Your task to perform on an android device: turn vacation reply on in the gmail app Image 0: 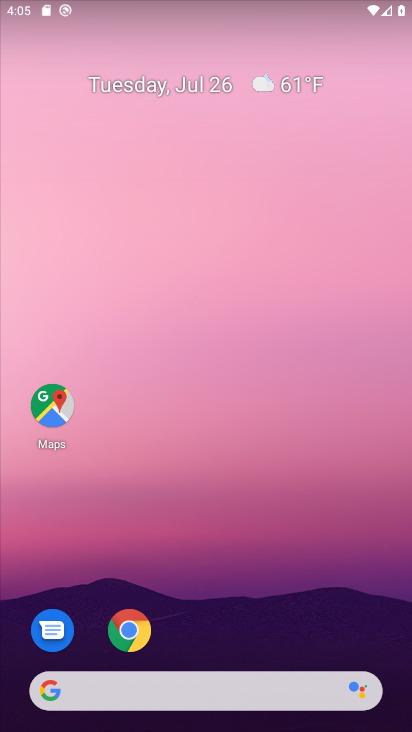
Step 0: drag from (224, 468) to (160, 226)
Your task to perform on an android device: turn vacation reply on in the gmail app Image 1: 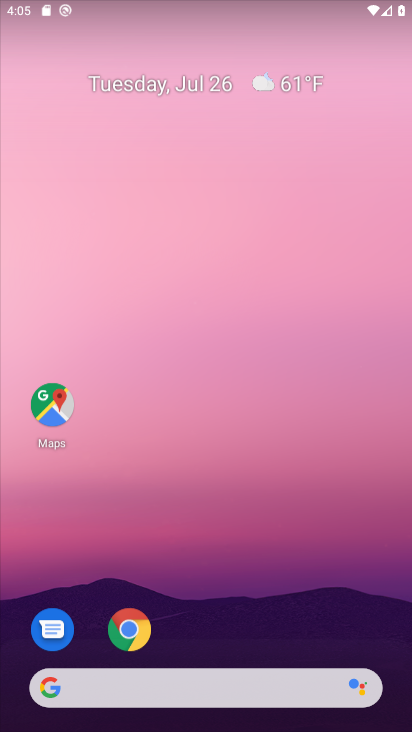
Step 1: click (225, 58)
Your task to perform on an android device: turn vacation reply on in the gmail app Image 2: 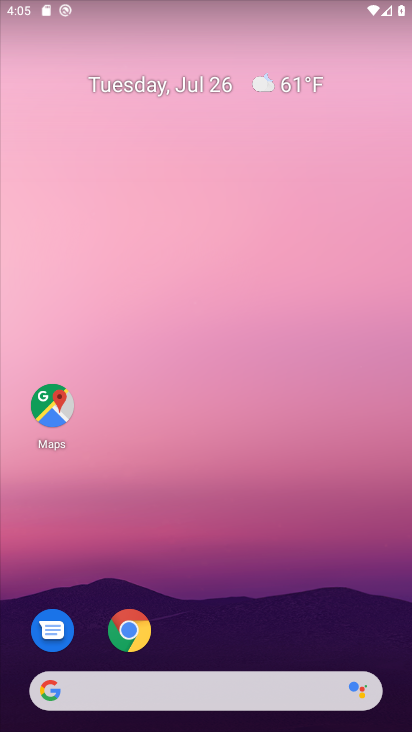
Step 2: drag from (251, 388) to (218, 9)
Your task to perform on an android device: turn vacation reply on in the gmail app Image 3: 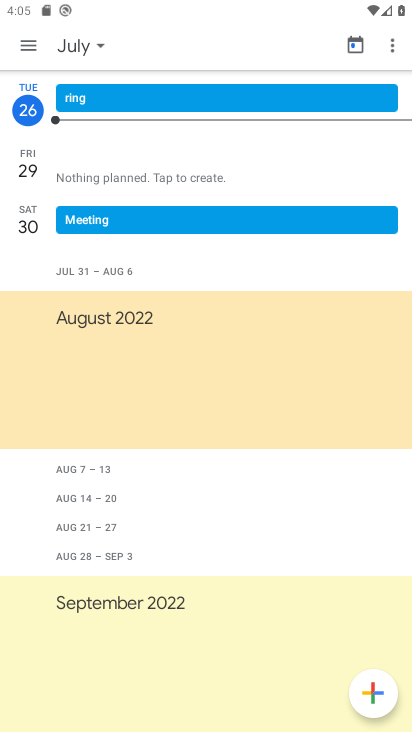
Step 3: press back button
Your task to perform on an android device: turn vacation reply on in the gmail app Image 4: 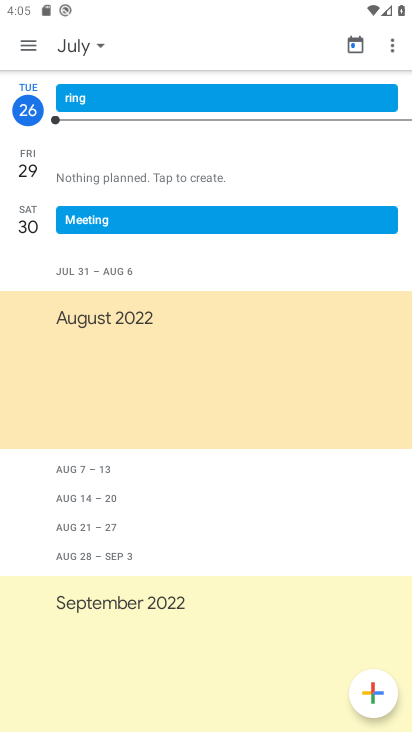
Step 4: press back button
Your task to perform on an android device: turn vacation reply on in the gmail app Image 5: 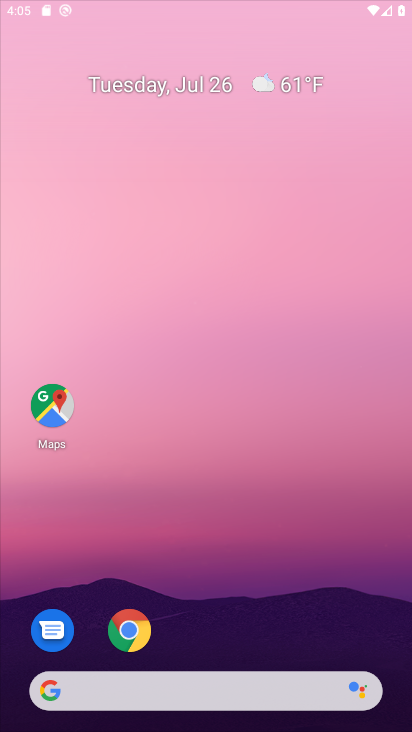
Step 5: press back button
Your task to perform on an android device: turn vacation reply on in the gmail app Image 6: 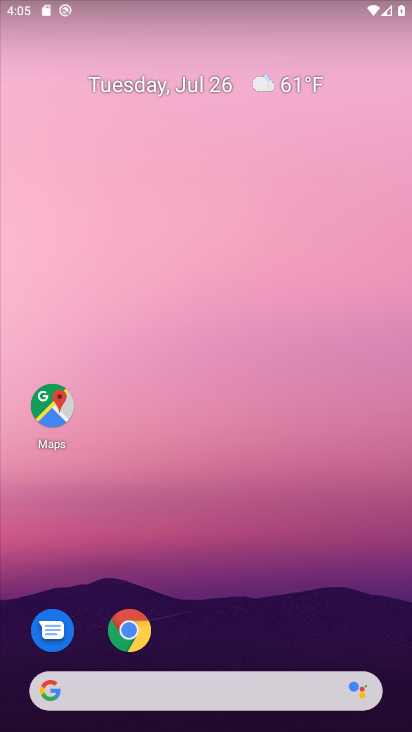
Step 6: drag from (239, 507) to (193, 55)
Your task to perform on an android device: turn vacation reply on in the gmail app Image 7: 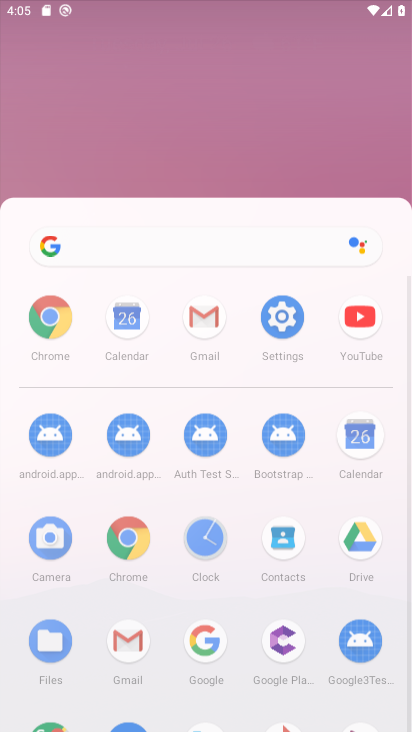
Step 7: drag from (246, 445) to (258, 148)
Your task to perform on an android device: turn vacation reply on in the gmail app Image 8: 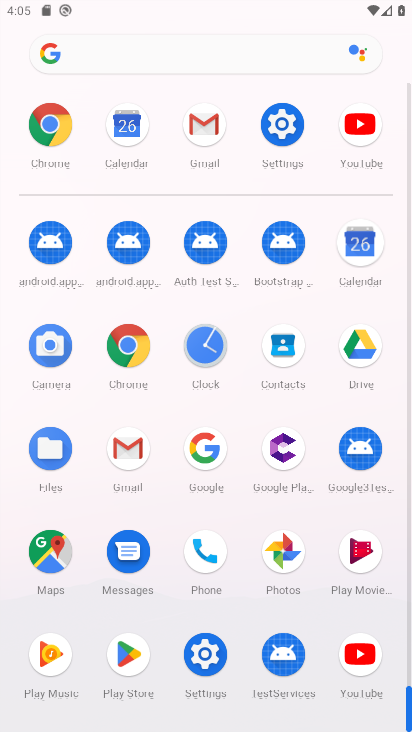
Step 8: click (209, 122)
Your task to perform on an android device: turn vacation reply on in the gmail app Image 9: 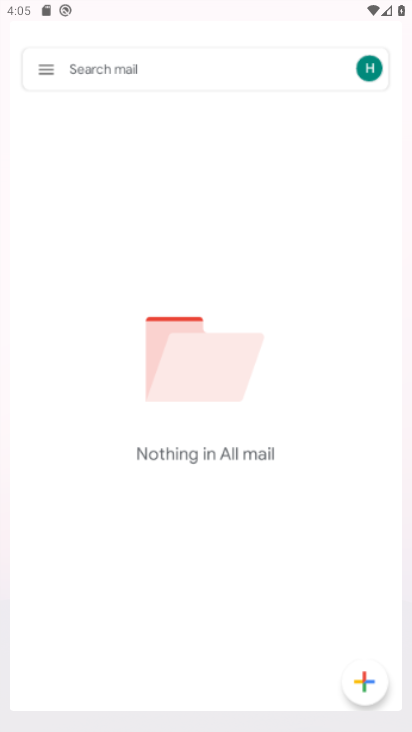
Step 9: click (194, 132)
Your task to perform on an android device: turn vacation reply on in the gmail app Image 10: 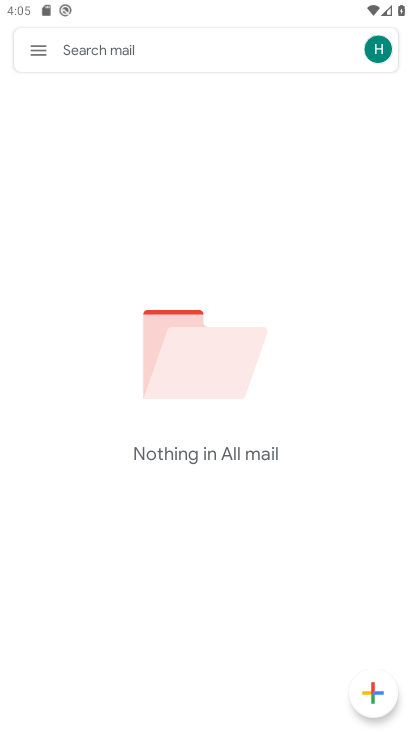
Step 10: click (39, 51)
Your task to perform on an android device: turn vacation reply on in the gmail app Image 11: 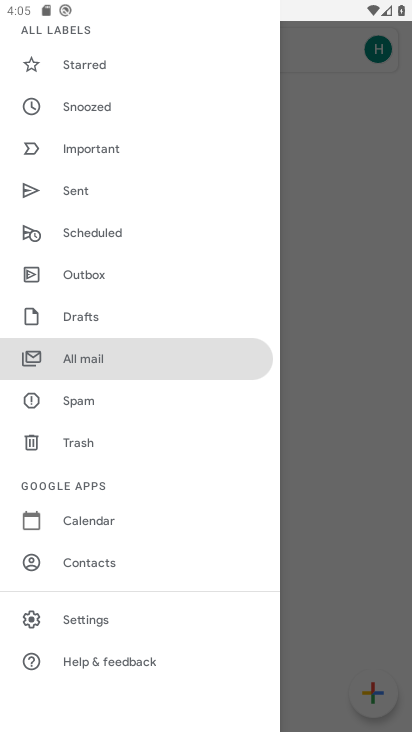
Step 11: click (86, 619)
Your task to perform on an android device: turn vacation reply on in the gmail app Image 12: 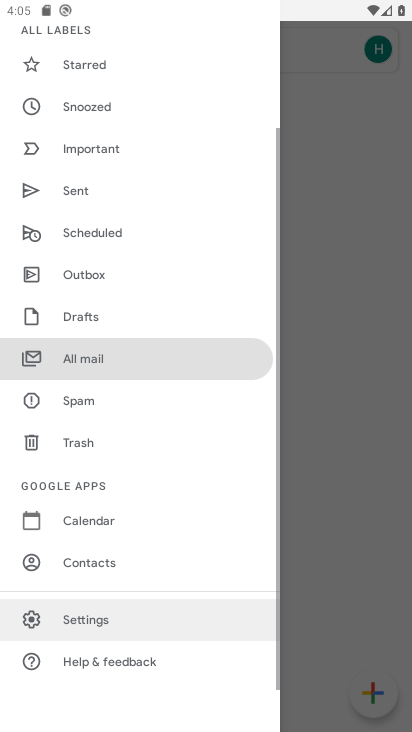
Step 12: click (86, 614)
Your task to perform on an android device: turn vacation reply on in the gmail app Image 13: 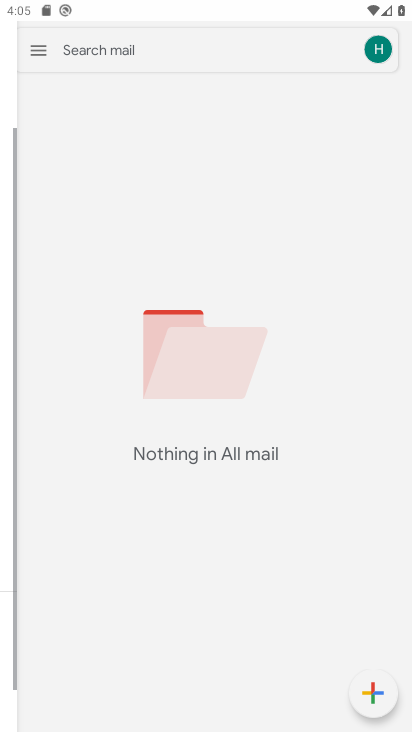
Step 13: click (87, 613)
Your task to perform on an android device: turn vacation reply on in the gmail app Image 14: 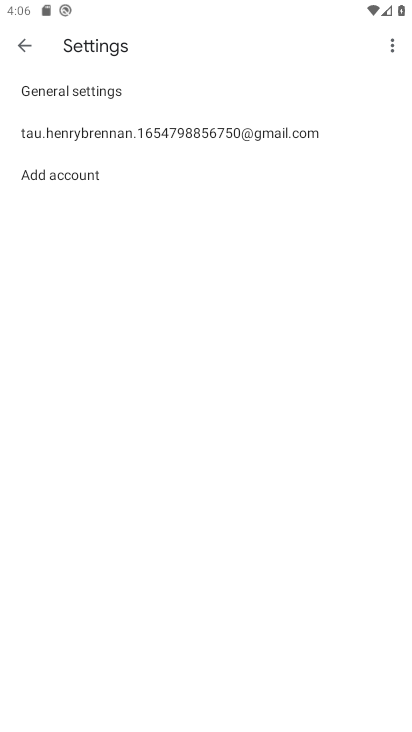
Step 14: click (87, 124)
Your task to perform on an android device: turn vacation reply on in the gmail app Image 15: 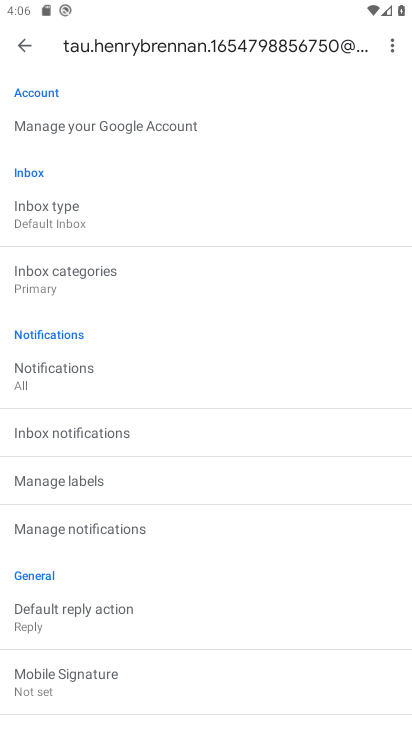
Step 15: drag from (108, 647) to (94, 350)
Your task to perform on an android device: turn vacation reply on in the gmail app Image 16: 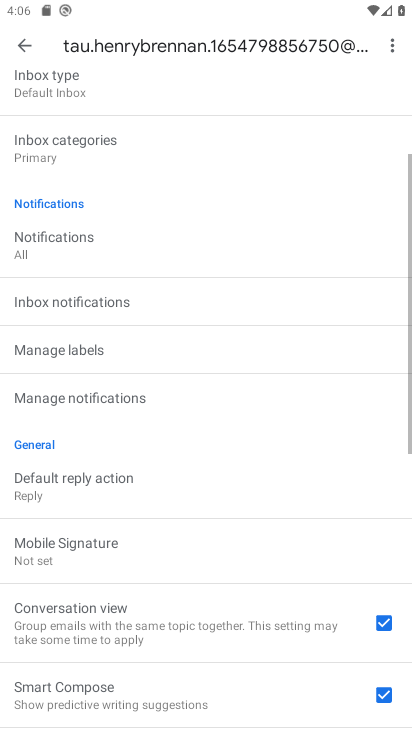
Step 16: drag from (97, 655) to (127, 192)
Your task to perform on an android device: turn vacation reply on in the gmail app Image 17: 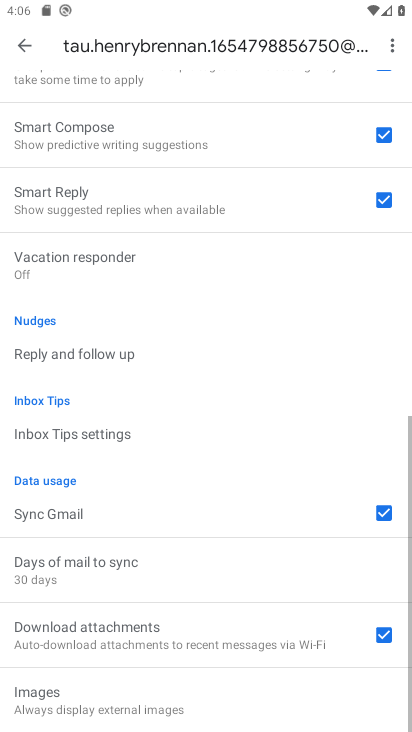
Step 17: drag from (120, 515) to (132, 301)
Your task to perform on an android device: turn vacation reply on in the gmail app Image 18: 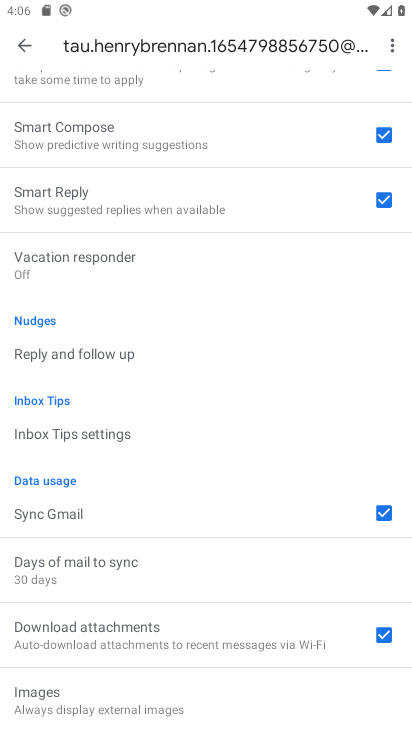
Step 18: click (102, 260)
Your task to perform on an android device: turn vacation reply on in the gmail app Image 19: 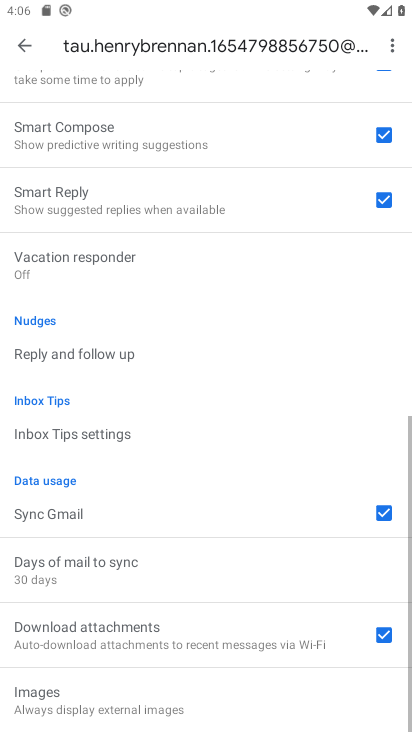
Step 19: click (102, 261)
Your task to perform on an android device: turn vacation reply on in the gmail app Image 20: 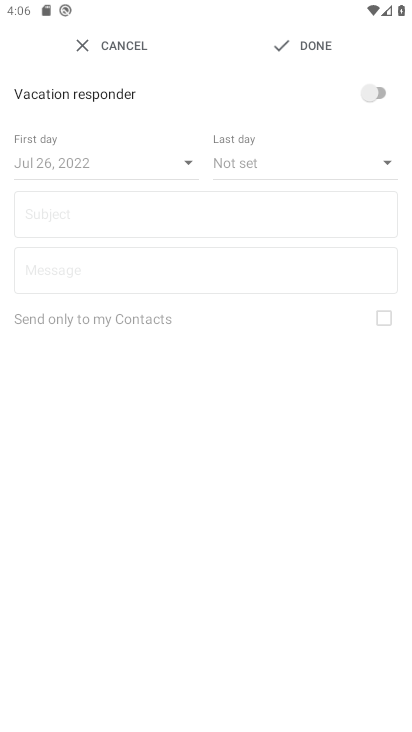
Step 20: click (361, 88)
Your task to perform on an android device: turn vacation reply on in the gmail app Image 21: 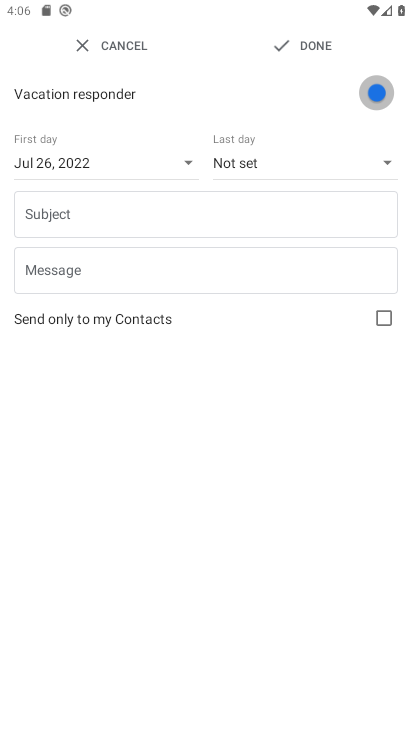
Step 21: click (363, 89)
Your task to perform on an android device: turn vacation reply on in the gmail app Image 22: 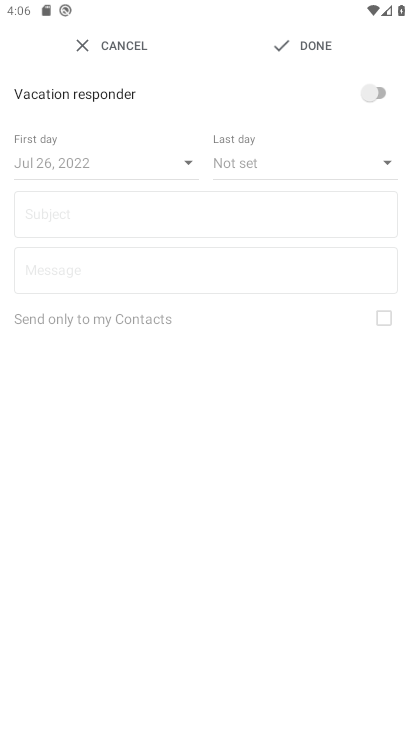
Step 22: click (373, 85)
Your task to perform on an android device: turn vacation reply on in the gmail app Image 23: 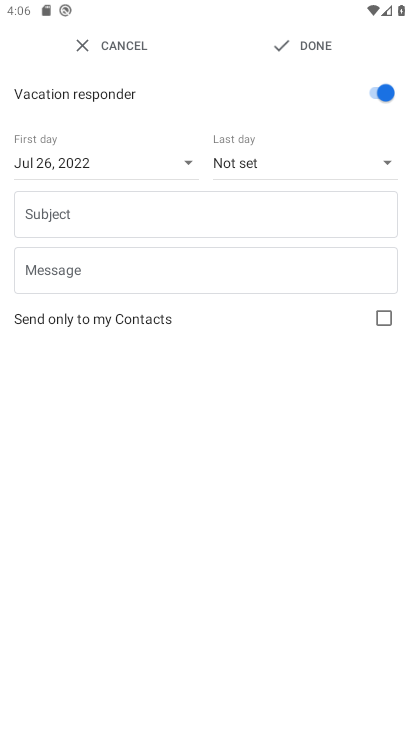
Step 23: task complete